Your task to perform on an android device: Show the shopping cart on ebay. Add "lg ultragear" to the cart on ebay Image 0: 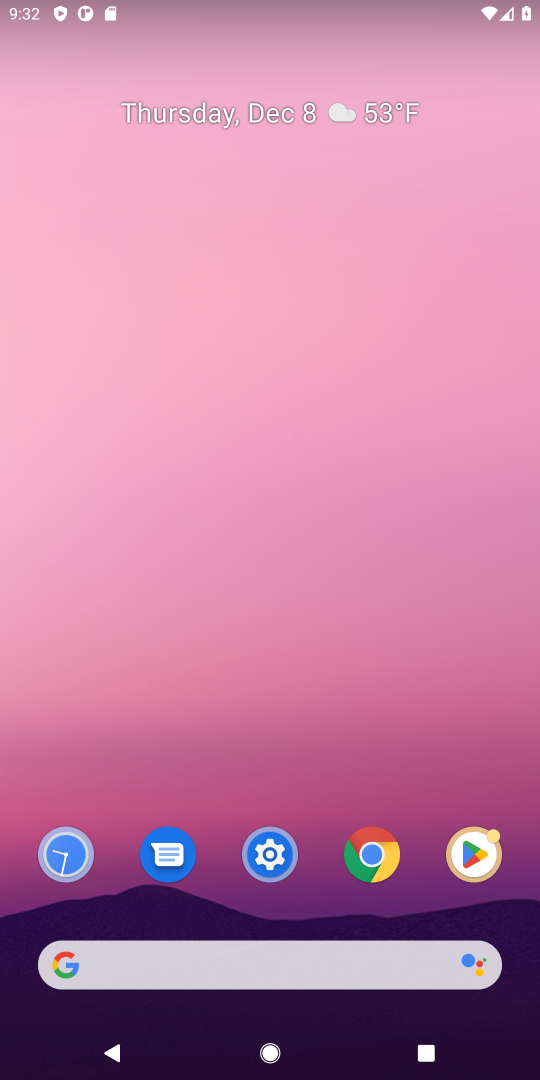
Step 0: press home button
Your task to perform on an android device: Show the shopping cart on ebay. Add "lg ultragear" to the cart on ebay Image 1: 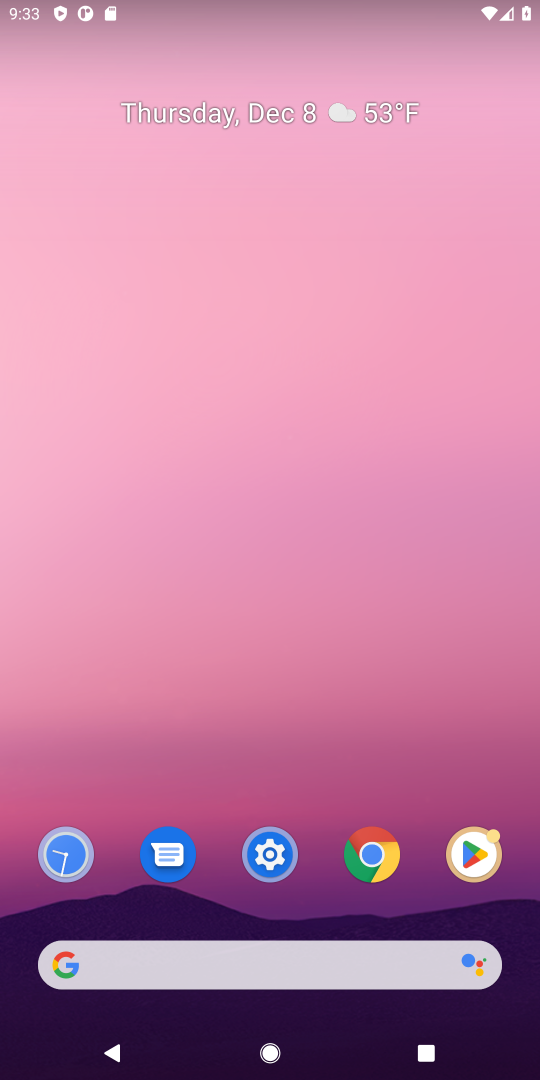
Step 1: click (87, 960)
Your task to perform on an android device: Show the shopping cart on ebay. Add "lg ultragear" to the cart on ebay Image 2: 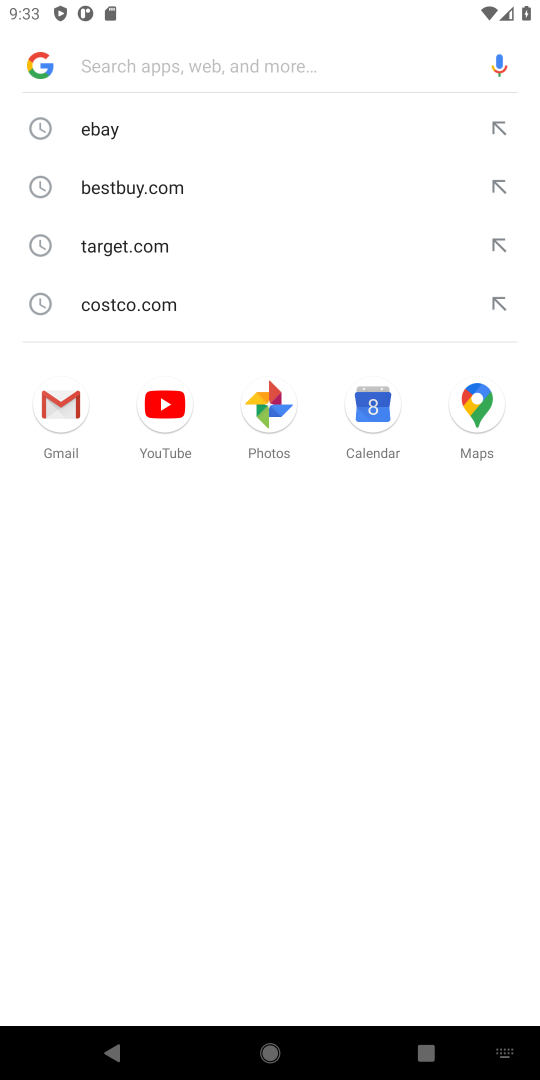
Step 2: type " ebay"
Your task to perform on an android device: Show the shopping cart on ebay. Add "lg ultragear" to the cart on ebay Image 3: 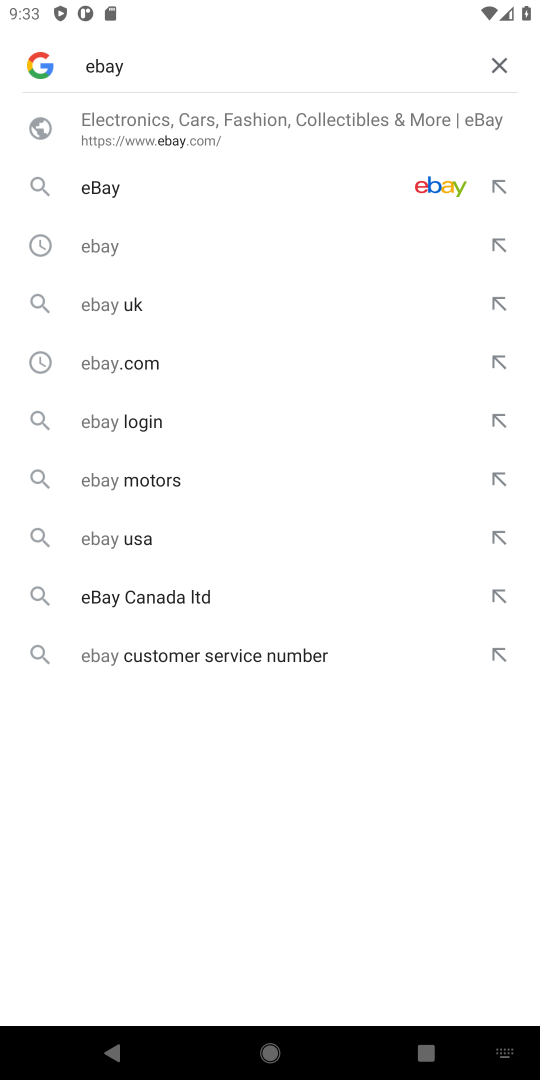
Step 3: press enter
Your task to perform on an android device: Show the shopping cart on ebay. Add "lg ultragear" to the cart on ebay Image 4: 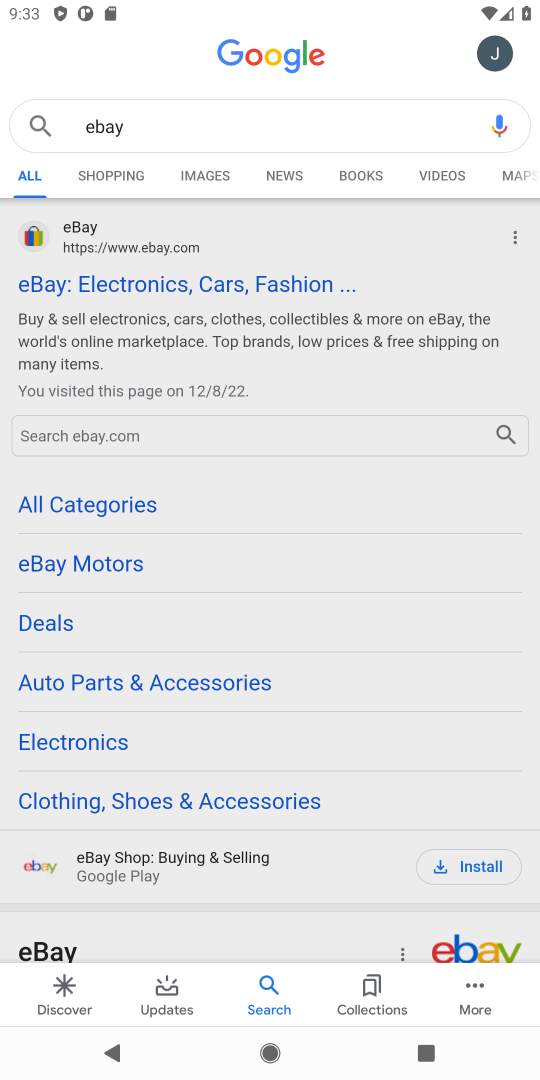
Step 4: click (173, 294)
Your task to perform on an android device: Show the shopping cart on ebay. Add "lg ultragear" to the cart on ebay Image 5: 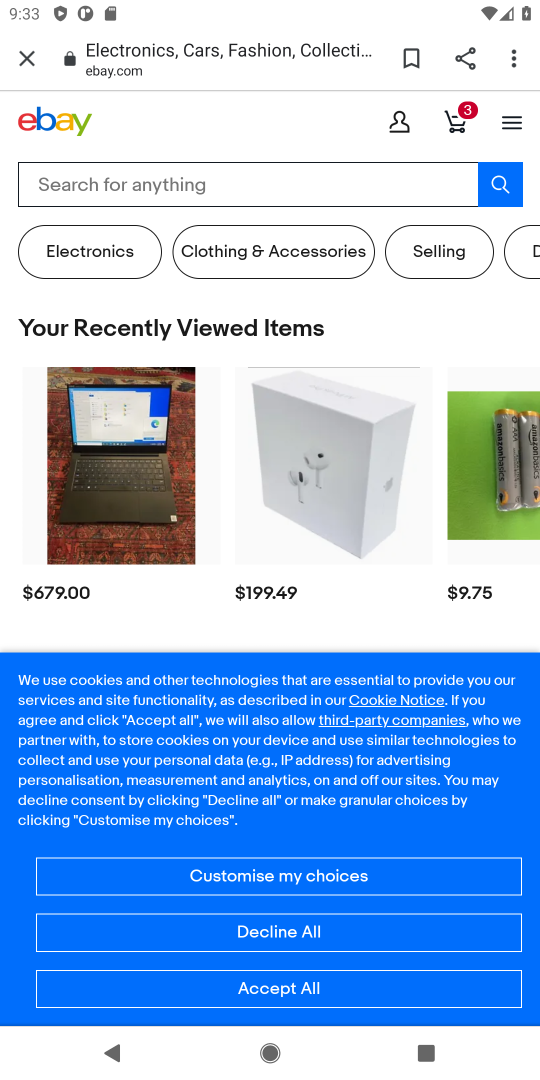
Step 5: click (451, 117)
Your task to perform on an android device: Show the shopping cart on ebay. Add "lg ultragear" to the cart on ebay Image 6: 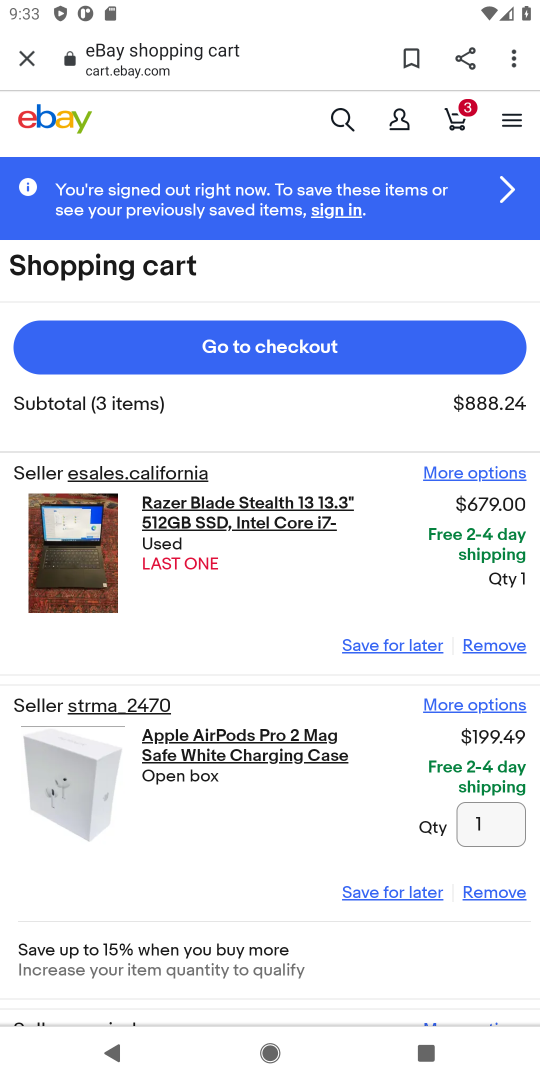
Step 6: click (338, 114)
Your task to perform on an android device: Show the shopping cart on ebay. Add "lg ultragear" to the cart on ebay Image 7: 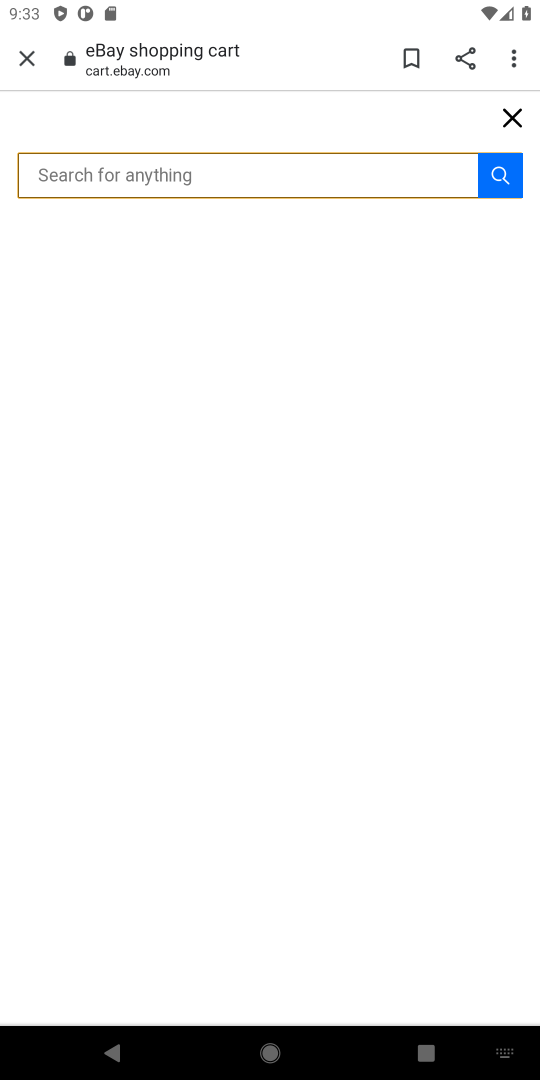
Step 7: type "lg ultragear"
Your task to perform on an android device: Show the shopping cart on ebay. Add "lg ultragear" to the cart on ebay Image 8: 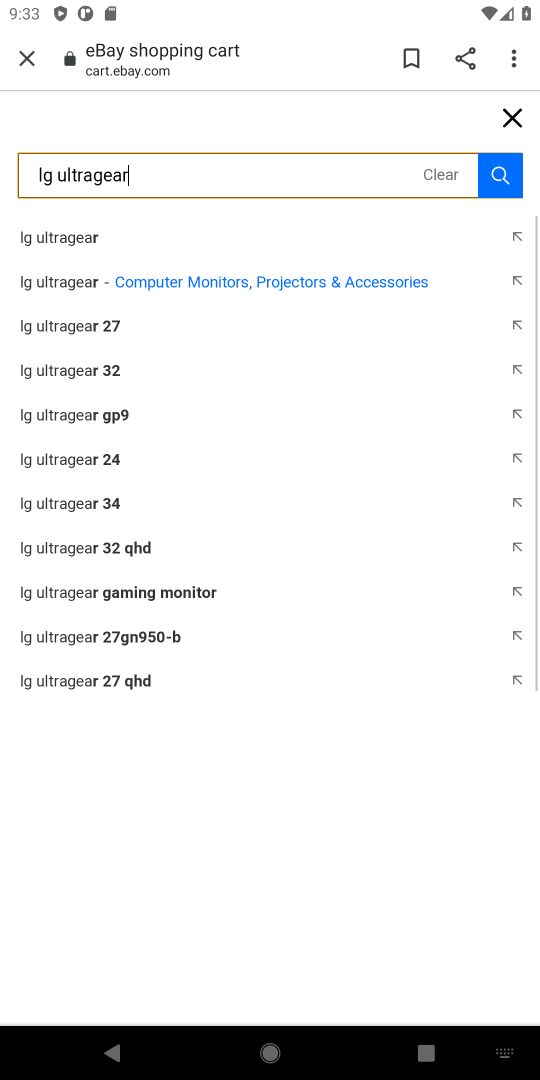
Step 8: press enter
Your task to perform on an android device: Show the shopping cart on ebay. Add "lg ultragear" to the cart on ebay Image 9: 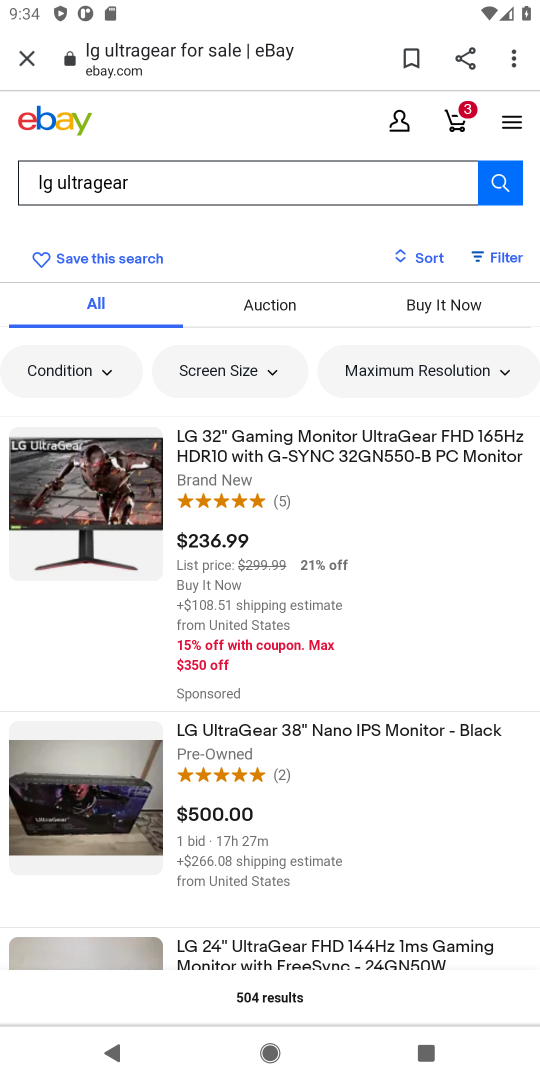
Step 9: drag from (323, 889) to (321, 595)
Your task to perform on an android device: Show the shopping cart on ebay. Add "lg ultragear" to the cart on ebay Image 10: 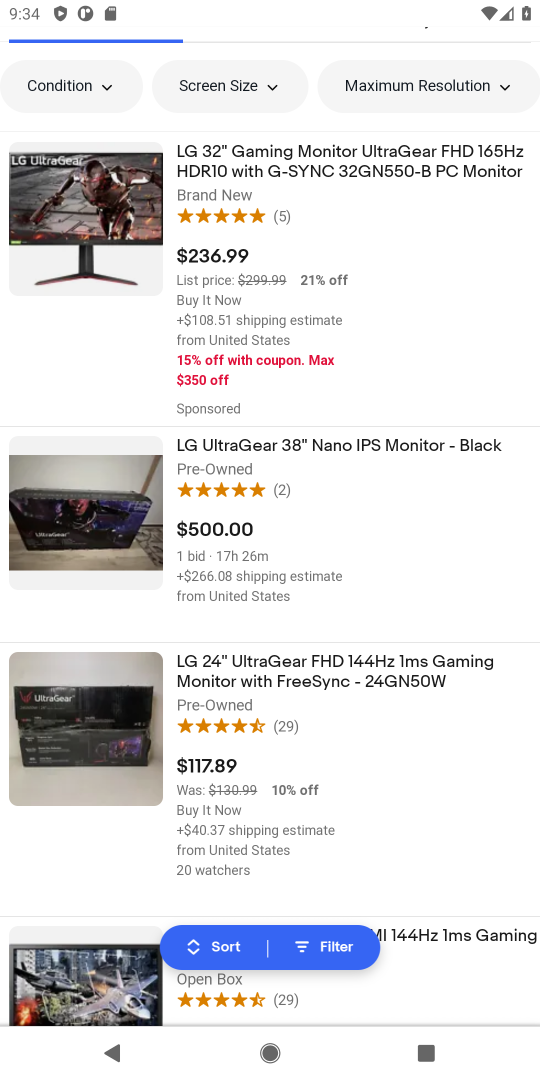
Step 10: click (255, 445)
Your task to perform on an android device: Show the shopping cart on ebay. Add "lg ultragear" to the cart on ebay Image 11: 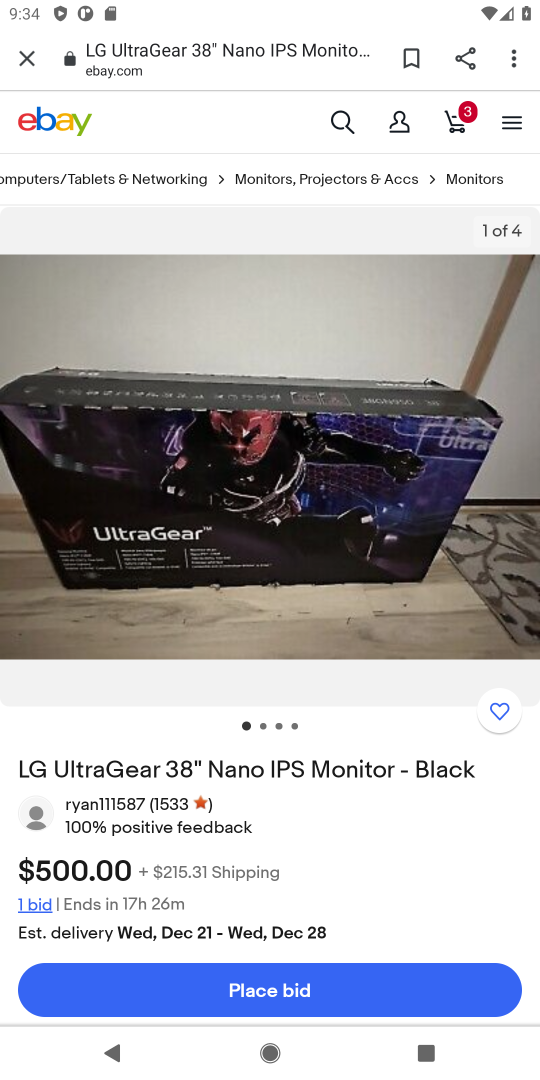
Step 11: drag from (318, 921) to (345, 374)
Your task to perform on an android device: Show the shopping cart on ebay. Add "lg ultragear" to the cart on ebay Image 12: 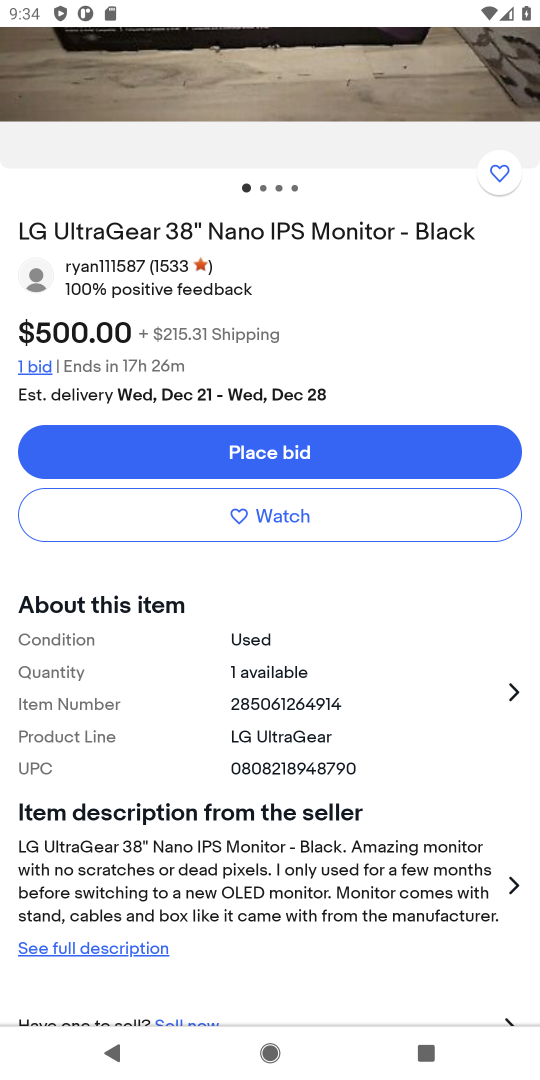
Step 12: click (230, 454)
Your task to perform on an android device: Show the shopping cart on ebay. Add "lg ultragear" to the cart on ebay Image 13: 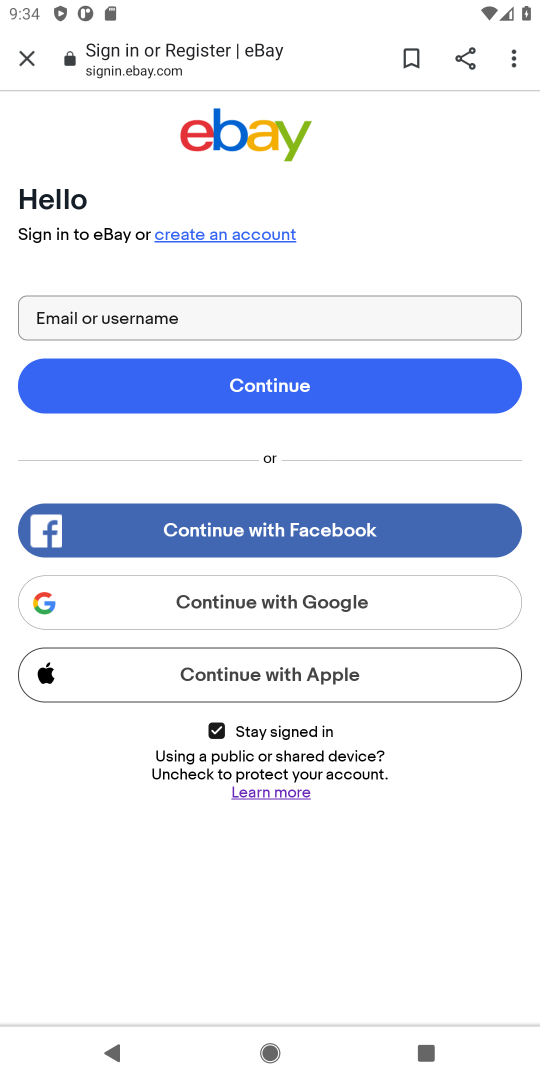
Step 13: task complete